Your task to perform on an android device: change timer sound Image 0: 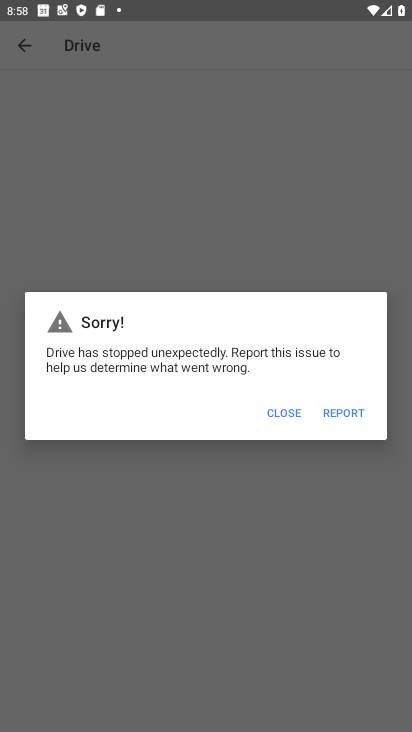
Step 0: press home button
Your task to perform on an android device: change timer sound Image 1: 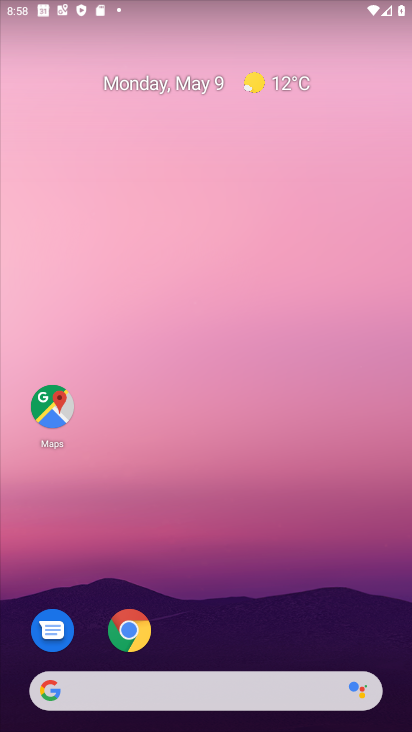
Step 1: drag from (217, 678) to (219, 307)
Your task to perform on an android device: change timer sound Image 2: 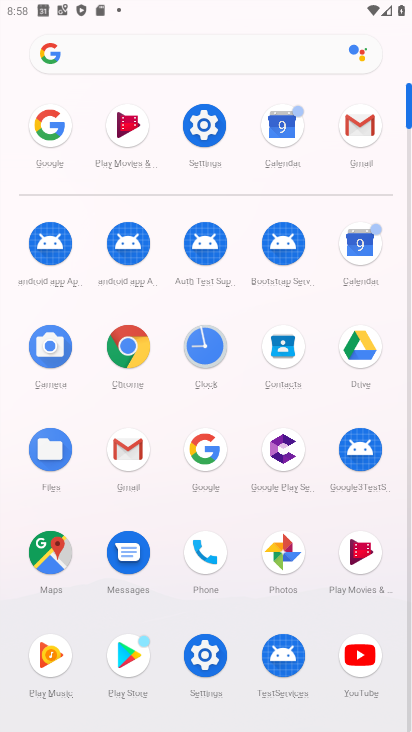
Step 2: click (211, 340)
Your task to perform on an android device: change timer sound Image 3: 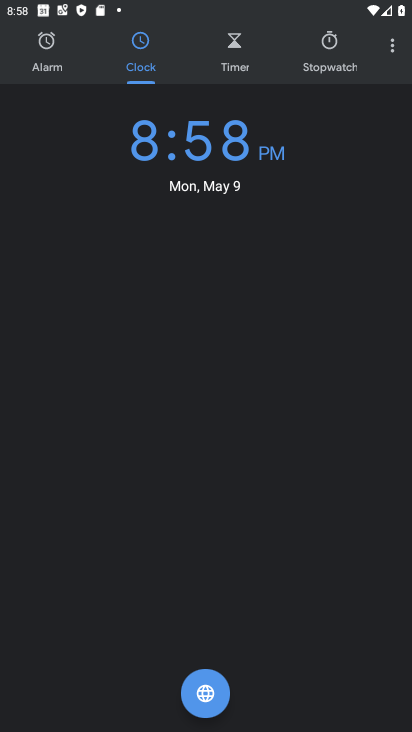
Step 3: click (388, 45)
Your task to perform on an android device: change timer sound Image 4: 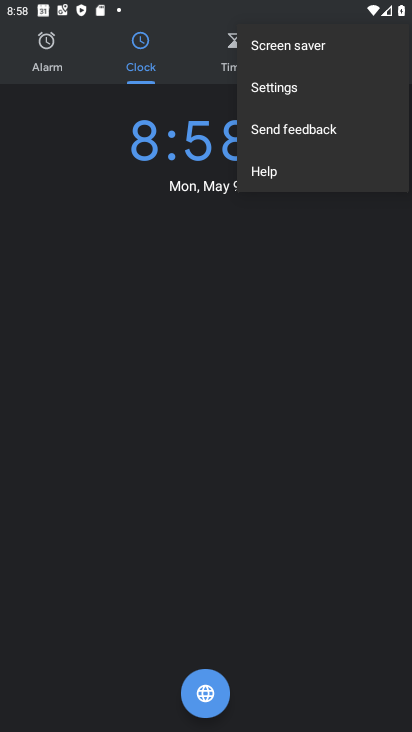
Step 4: click (290, 88)
Your task to perform on an android device: change timer sound Image 5: 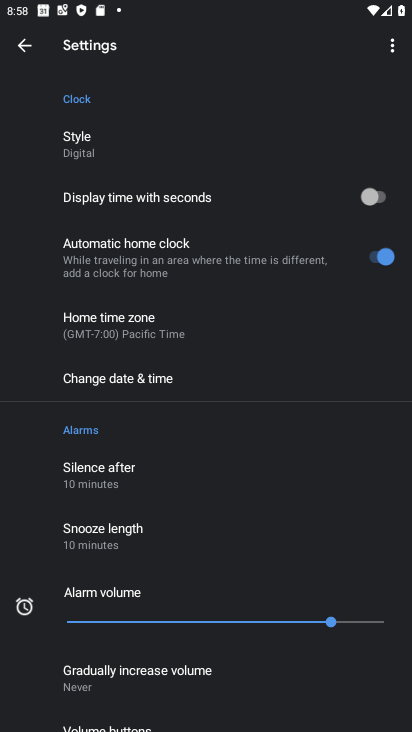
Step 5: drag from (137, 698) to (180, 227)
Your task to perform on an android device: change timer sound Image 6: 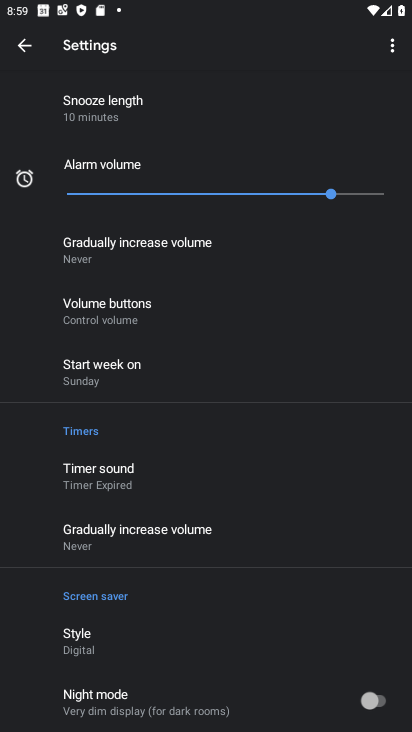
Step 6: click (125, 476)
Your task to perform on an android device: change timer sound Image 7: 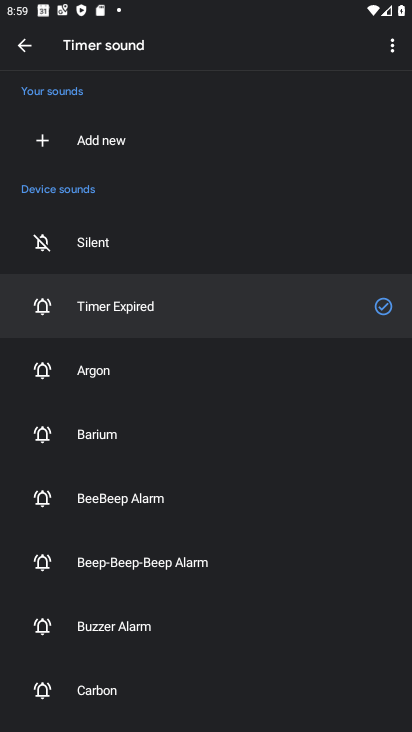
Step 7: click (105, 376)
Your task to perform on an android device: change timer sound Image 8: 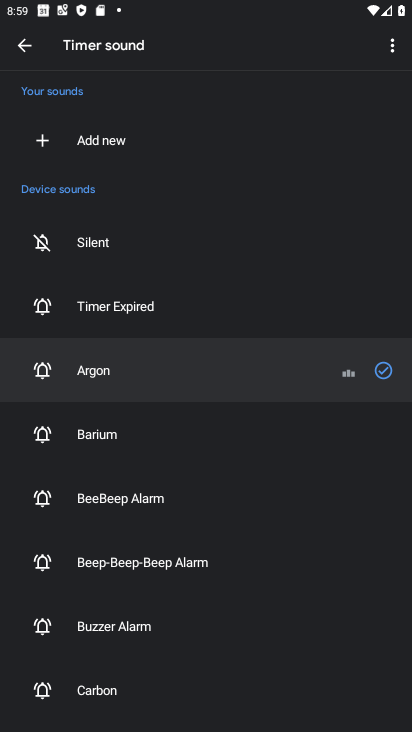
Step 8: task complete